Your task to perform on an android device: toggle airplane mode Image 0: 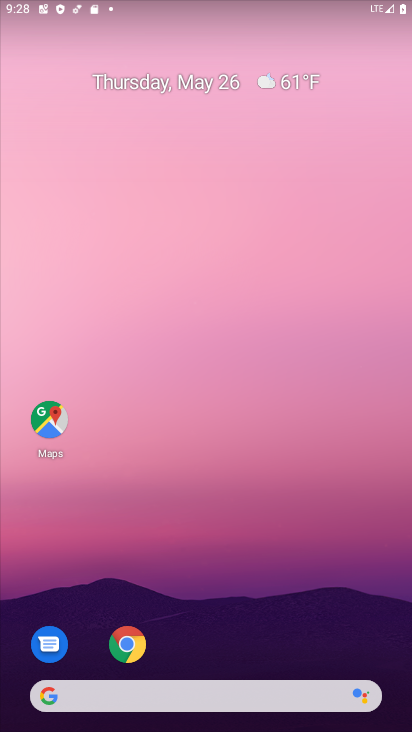
Step 0: drag from (278, 691) to (190, 244)
Your task to perform on an android device: toggle airplane mode Image 1: 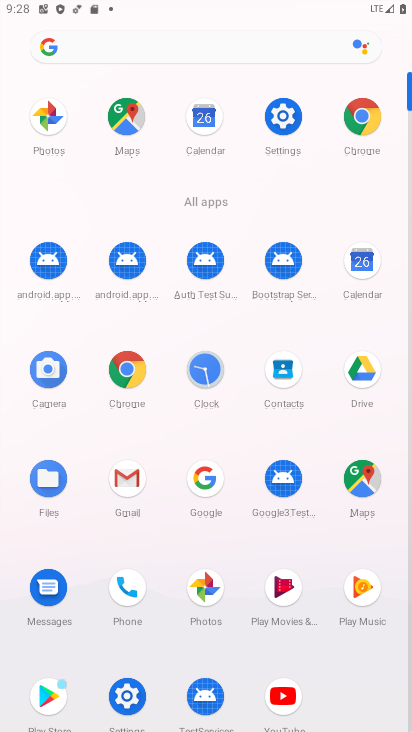
Step 1: click (369, 129)
Your task to perform on an android device: toggle airplane mode Image 2: 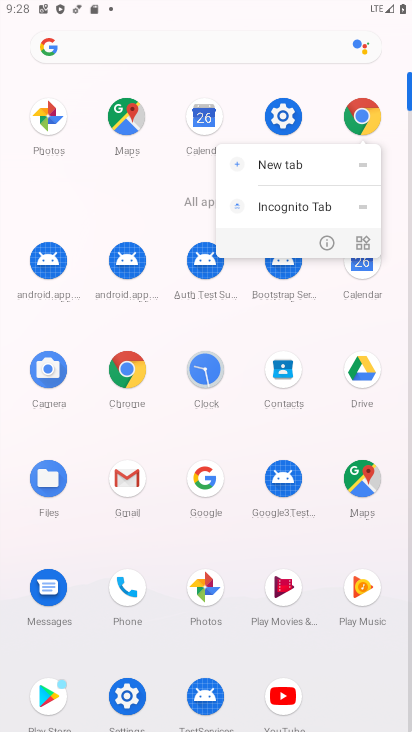
Step 2: press back button
Your task to perform on an android device: toggle airplane mode Image 3: 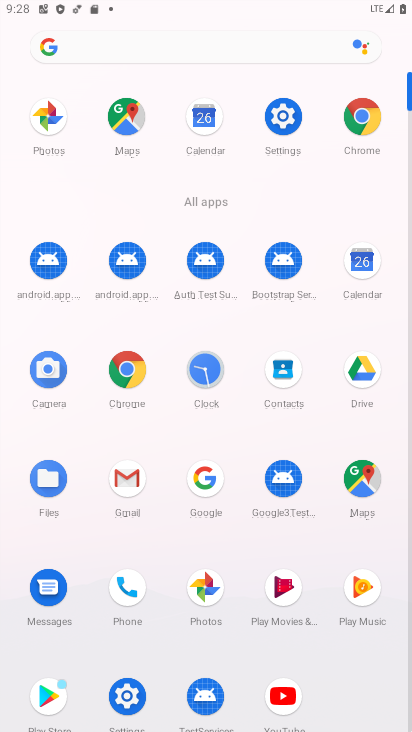
Step 3: click (278, 119)
Your task to perform on an android device: toggle airplane mode Image 4: 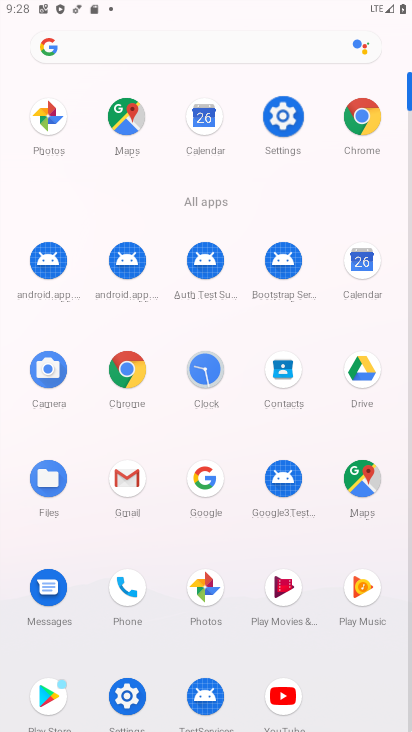
Step 4: click (279, 119)
Your task to perform on an android device: toggle airplane mode Image 5: 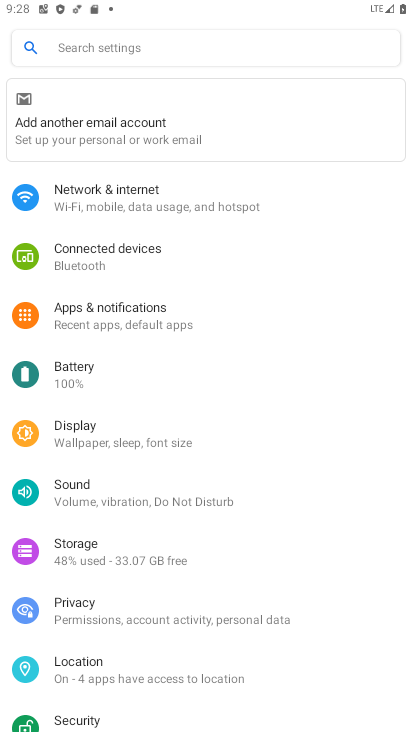
Step 5: click (109, 193)
Your task to perform on an android device: toggle airplane mode Image 6: 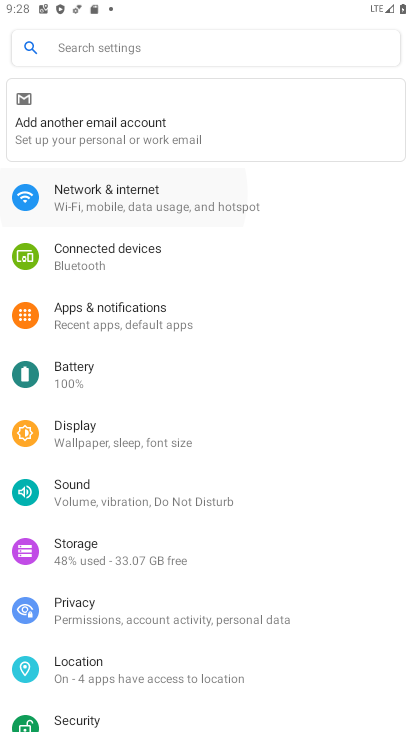
Step 6: click (109, 193)
Your task to perform on an android device: toggle airplane mode Image 7: 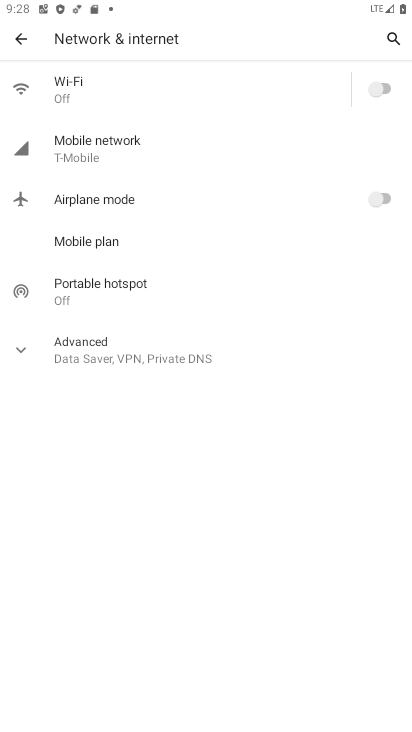
Step 7: click (390, 184)
Your task to perform on an android device: toggle airplane mode Image 8: 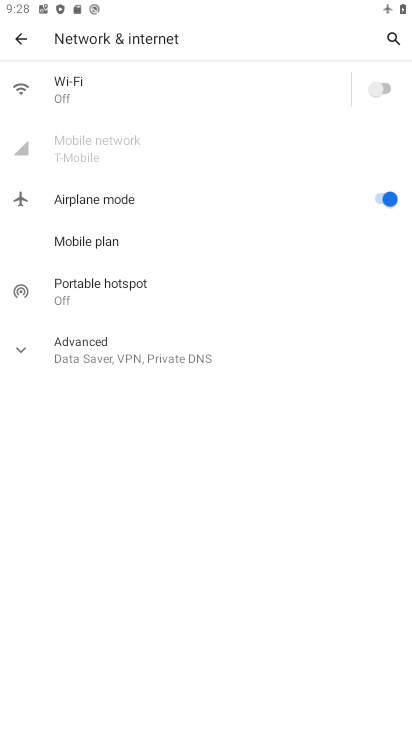
Step 8: task complete